Your task to perform on an android device: search for starred emails in the gmail app Image 0: 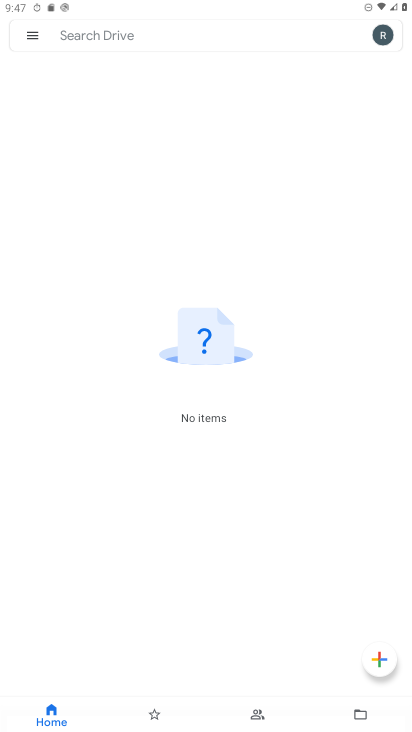
Step 0: press home button
Your task to perform on an android device: search for starred emails in the gmail app Image 1: 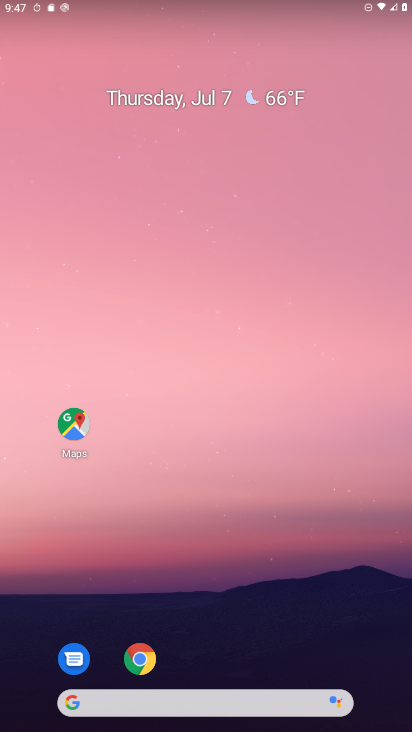
Step 1: drag from (395, 689) to (373, 73)
Your task to perform on an android device: search for starred emails in the gmail app Image 2: 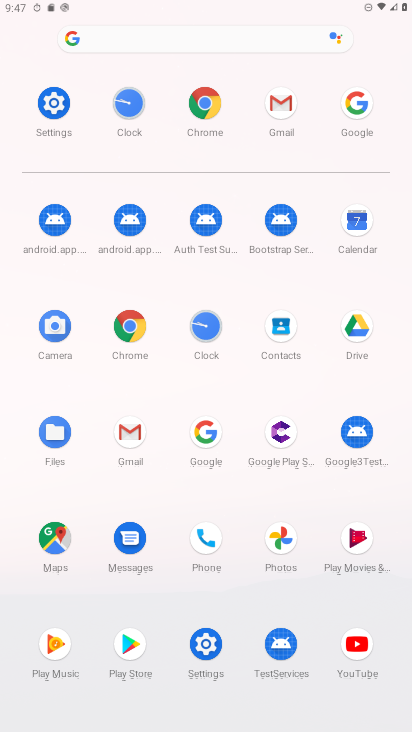
Step 2: click (139, 442)
Your task to perform on an android device: search for starred emails in the gmail app Image 3: 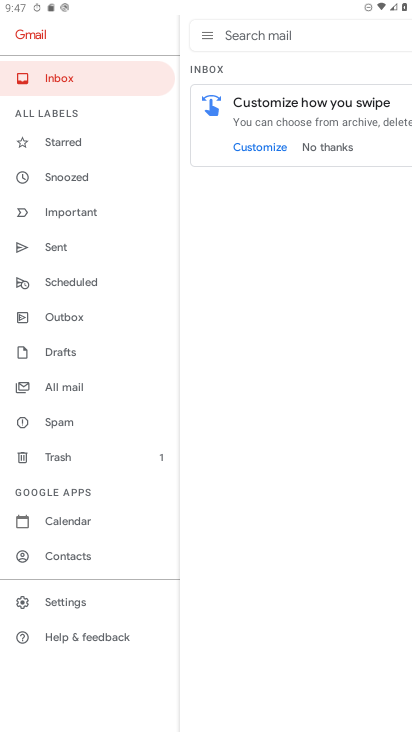
Step 3: click (66, 152)
Your task to perform on an android device: search for starred emails in the gmail app Image 4: 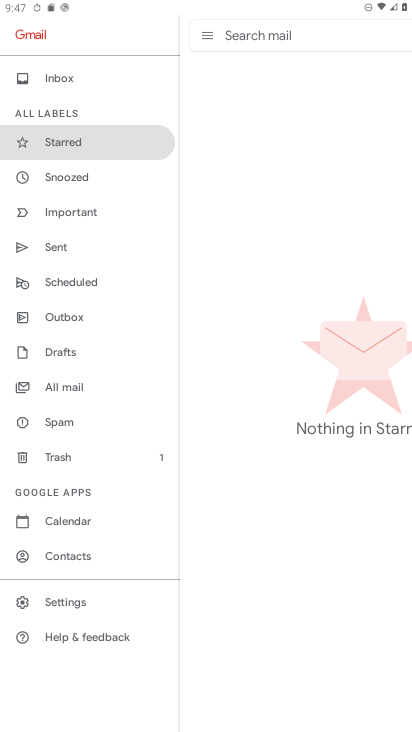
Step 4: task complete